Your task to perform on an android device: toggle translation in the chrome app Image 0: 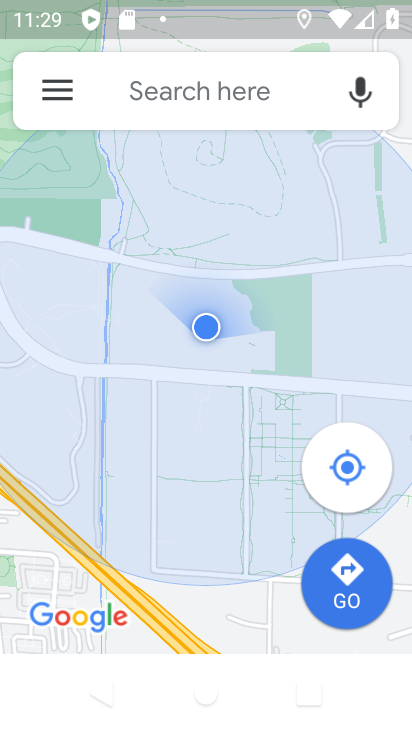
Step 0: press back button
Your task to perform on an android device: toggle translation in the chrome app Image 1: 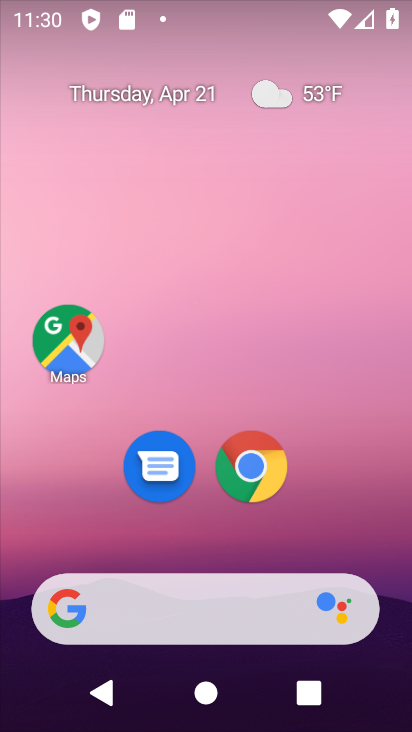
Step 1: drag from (315, 465) to (261, 45)
Your task to perform on an android device: toggle translation in the chrome app Image 2: 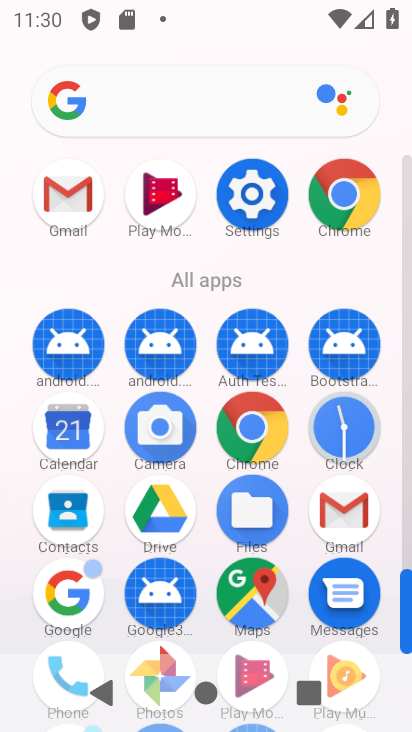
Step 2: click (346, 191)
Your task to perform on an android device: toggle translation in the chrome app Image 3: 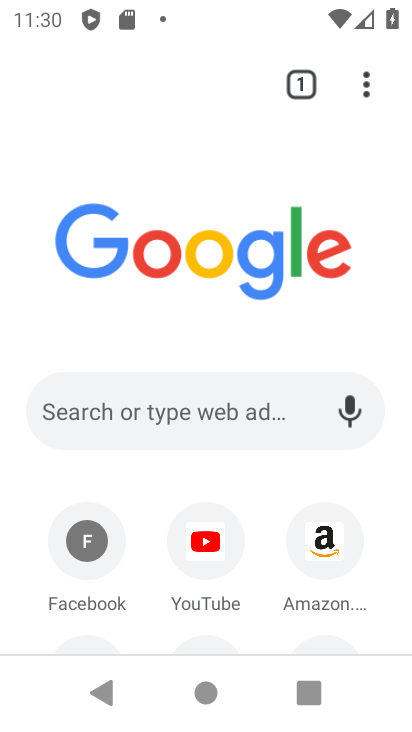
Step 3: drag from (371, 87) to (146, 494)
Your task to perform on an android device: toggle translation in the chrome app Image 4: 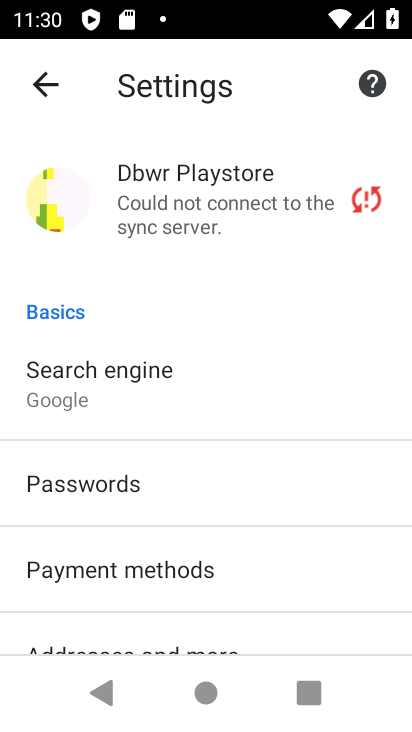
Step 4: drag from (226, 614) to (238, 228)
Your task to perform on an android device: toggle translation in the chrome app Image 5: 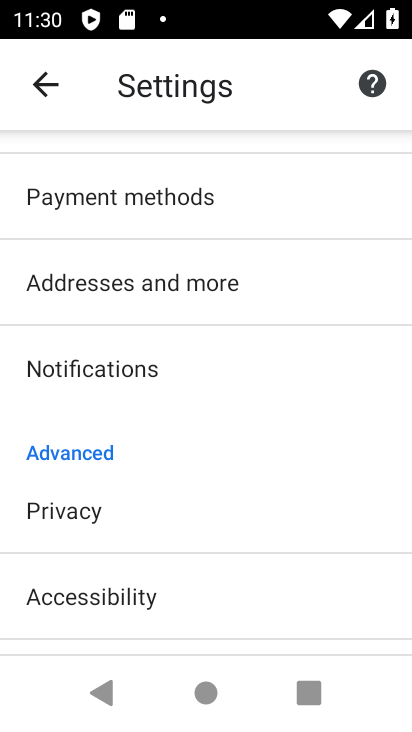
Step 5: drag from (215, 533) to (214, 250)
Your task to perform on an android device: toggle translation in the chrome app Image 6: 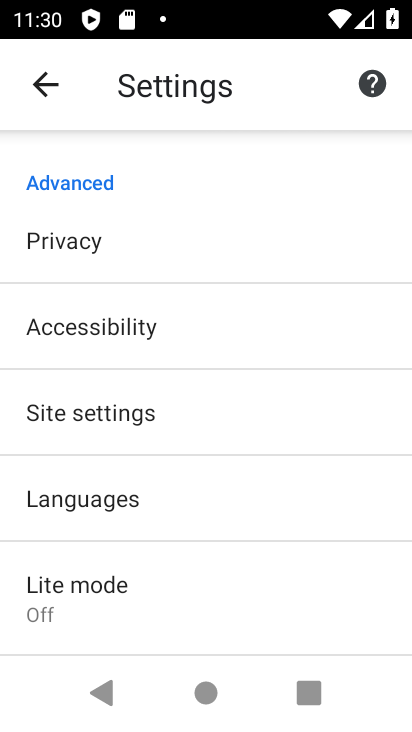
Step 6: click (154, 489)
Your task to perform on an android device: toggle translation in the chrome app Image 7: 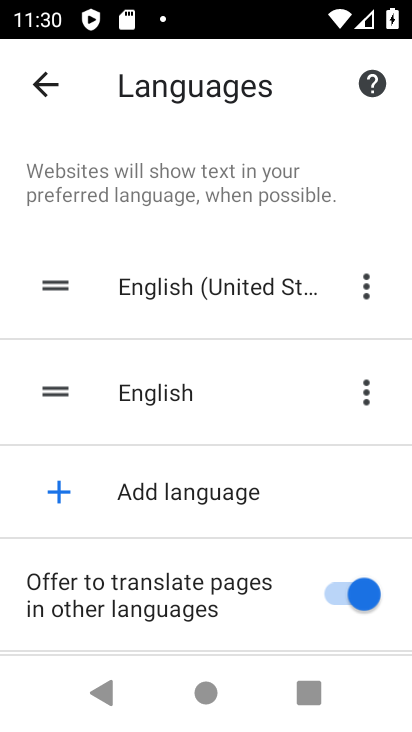
Step 7: click (342, 588)
Your task to perform on an android device: toggle translation in the chrome app Image 8: 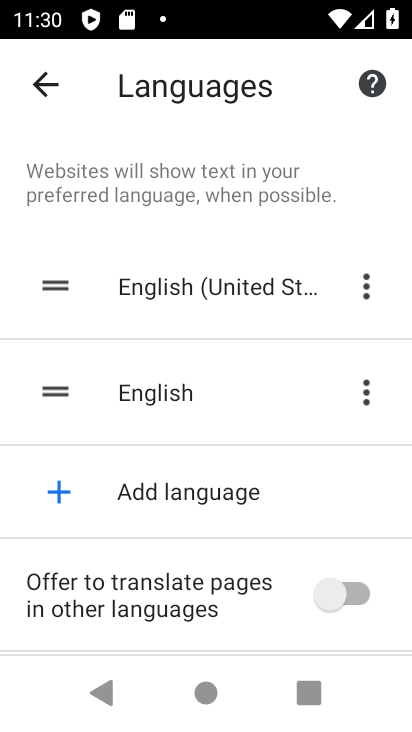
Step 8: task complete